Your task to perform on an android device: Look up the best rated Nike shoes on Nike.com Image 0: 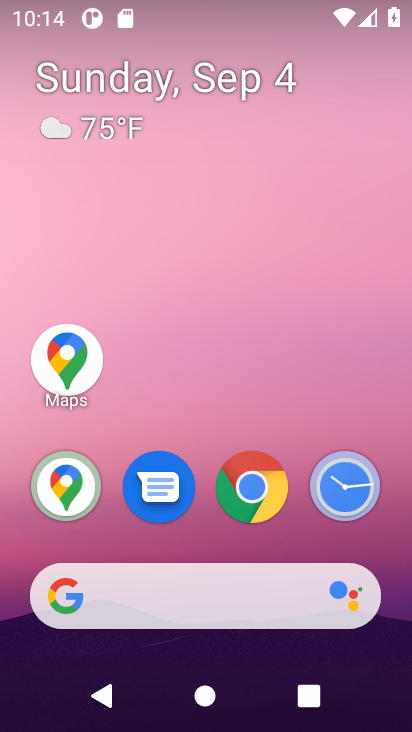
Step 0: click (147, 475)
Your task to perform on an android device: Look up the best rated Nike shoes on Nike.com Image 1: 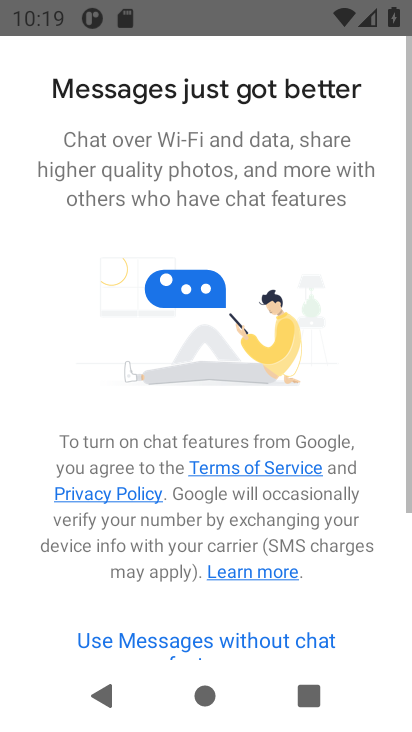
Step 1: task complete